Your task to perform on an android device: check battery use Image 0: 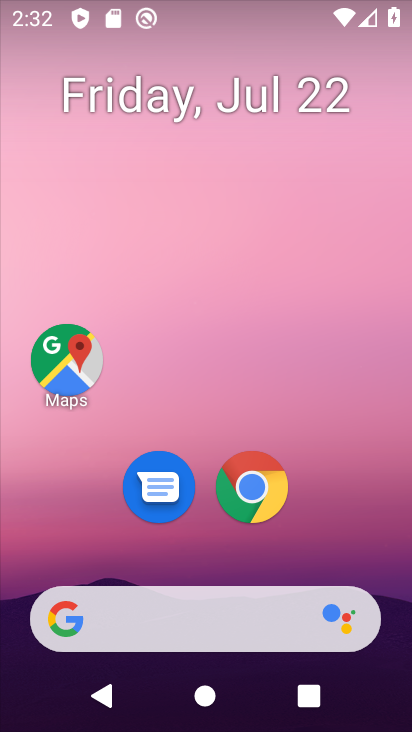
Step 0: drag from (138, 560) to (272, 19)
Your task to perform on an android device: check battery use Image 1: 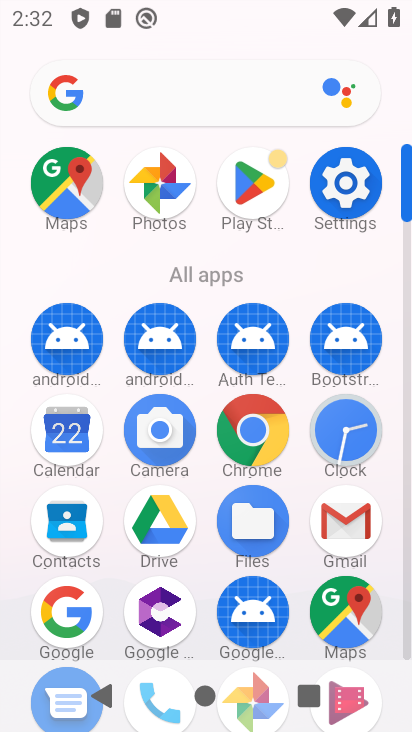
Step 1: click (335, 181)
Your task to perform on an android device: check battery use Image 2: 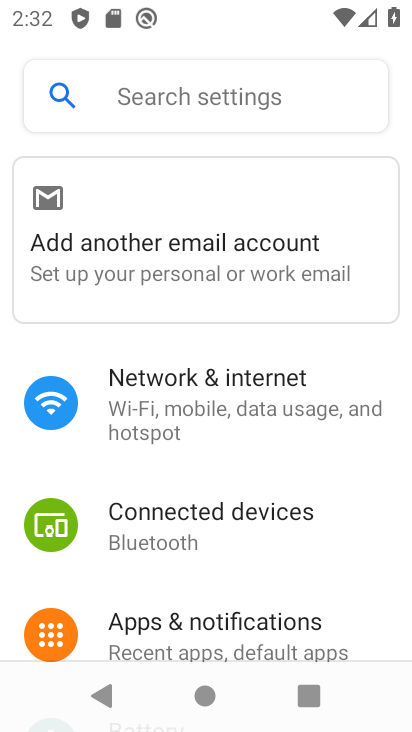
Step 2: drag from (194, 592) to (305, 135)
Your task to perform on an android device: check battery use Image 3: 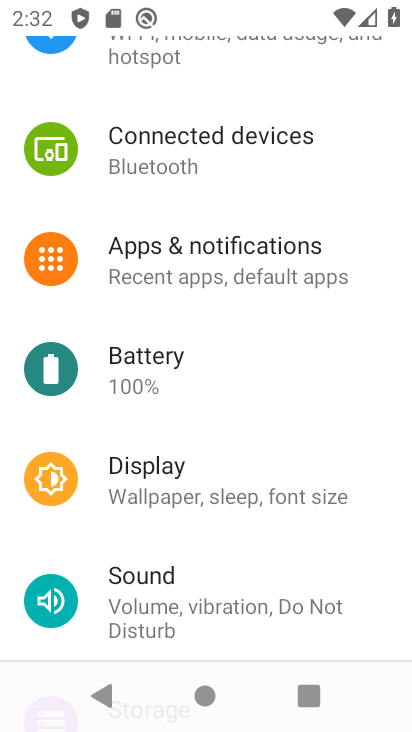
Step 3: click (146, 358)
Your task to perform on an android device: check battery use Image 4: 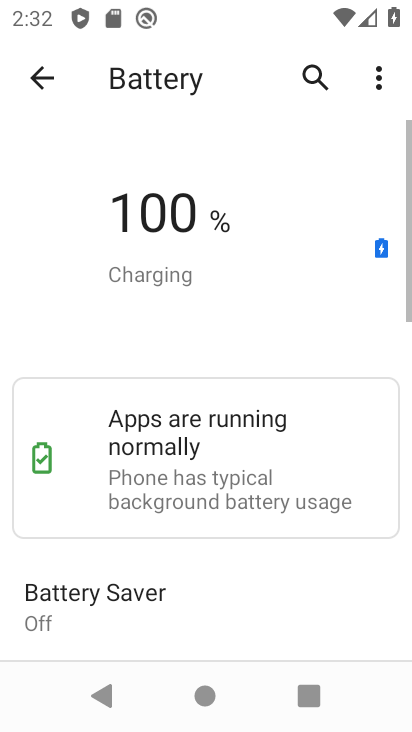
Step 4: click (372, 63)
Your task to perform on an android device: check battery use Image 5: 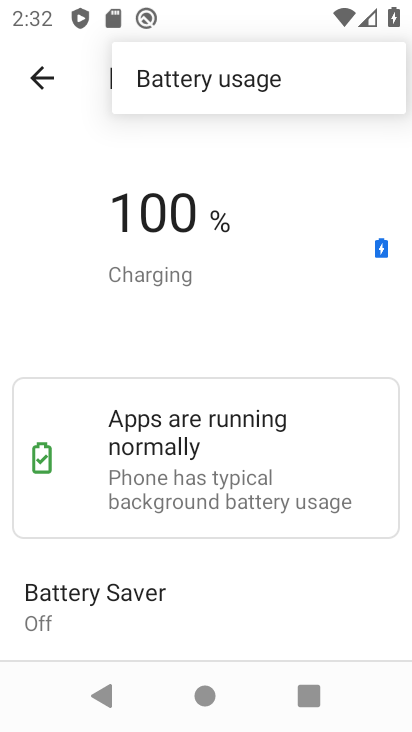
Step 5: click (242, 78)
Your task to perform on an android device: check battery use Image 6: 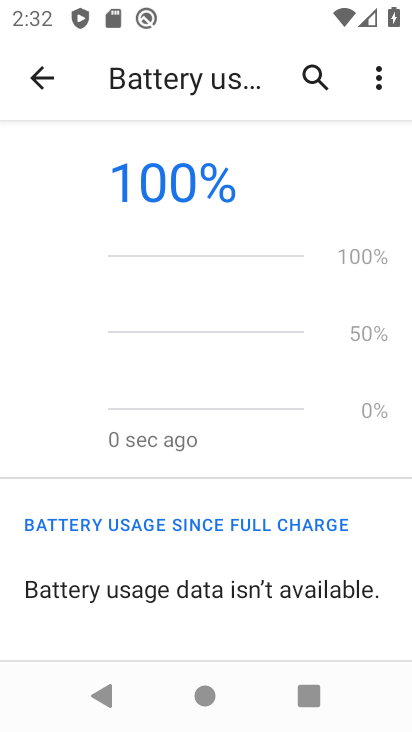
Step 6: task complete